Your task to perform on an android device: toggle data saver in the chrome app Image 0: 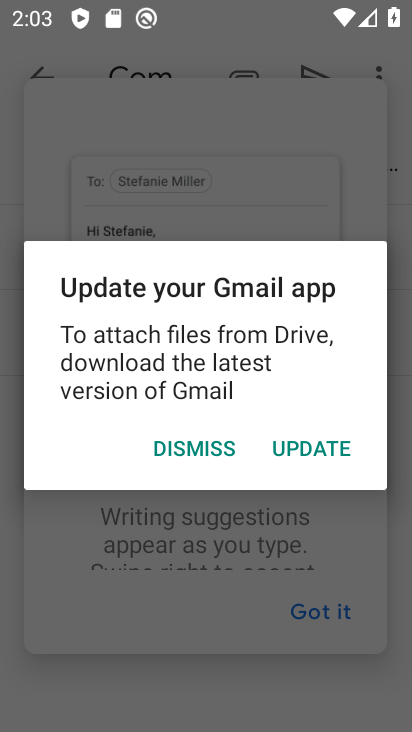
Step 0: press back button
Your task to perform on an android device: toggle data saver in the chrome app Image 1: 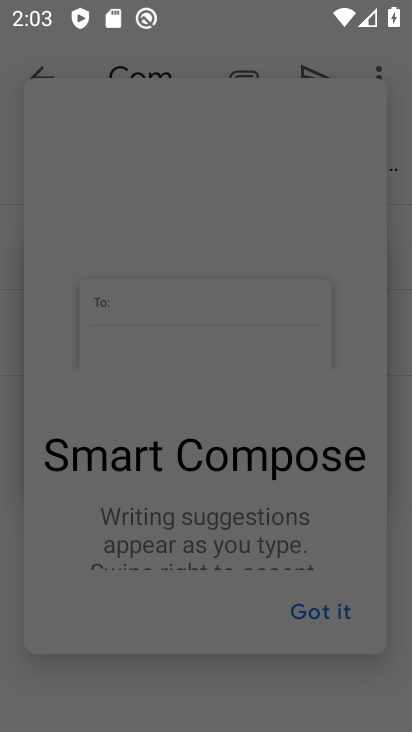
Step 1: press home button
Your task to perform on an android device: toggle data saver in the chrome app Image 2: 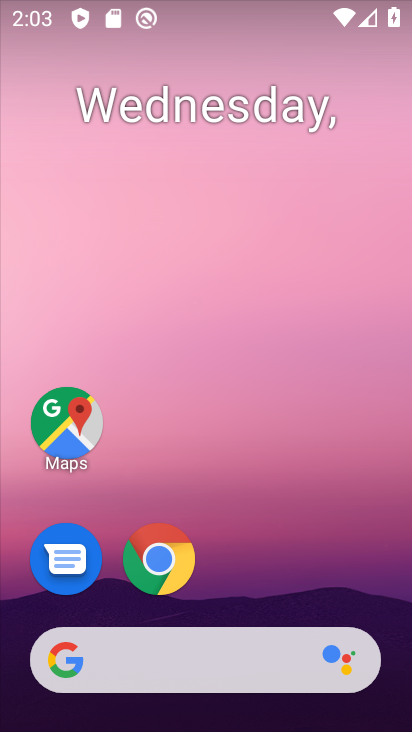
Step 2: click (138, 524)
Your task to perform on an android device: toggle data saver in the chrome app Image 3: 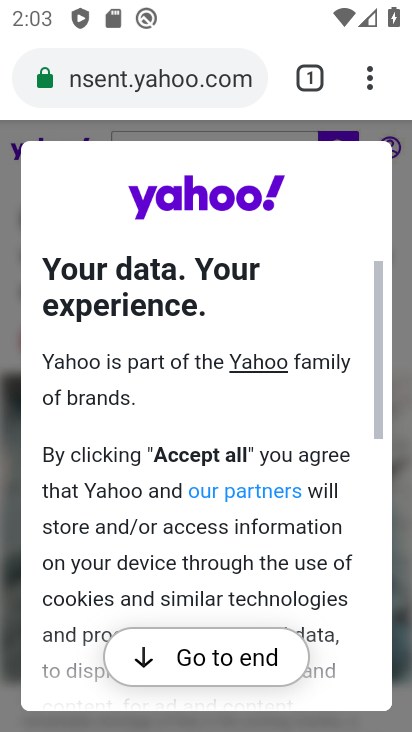
Step 3: drag from (377, 63) to (97, 599)
Your task to perform on an android device: toggle data saver in the chrome app Image 4: 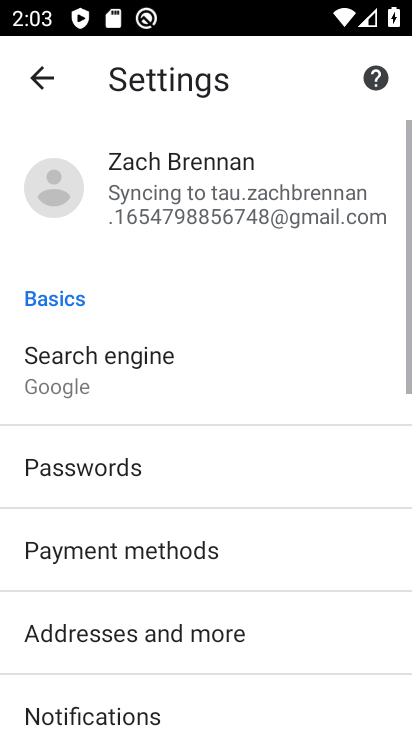
Step 4: drag from (161, 649) to (215, 92)
Your task to perform on an android device: toggle data saver in the chrome app Image 5: 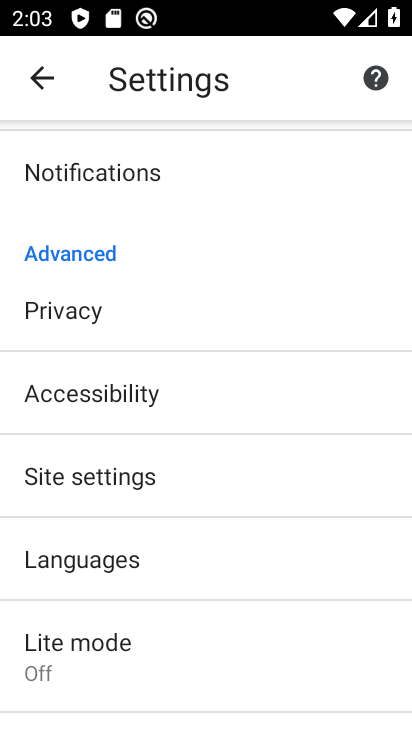
Step 5: click (158, 654)
Your task to perform on an android device: toggle data saver in the chrome app Image 6: 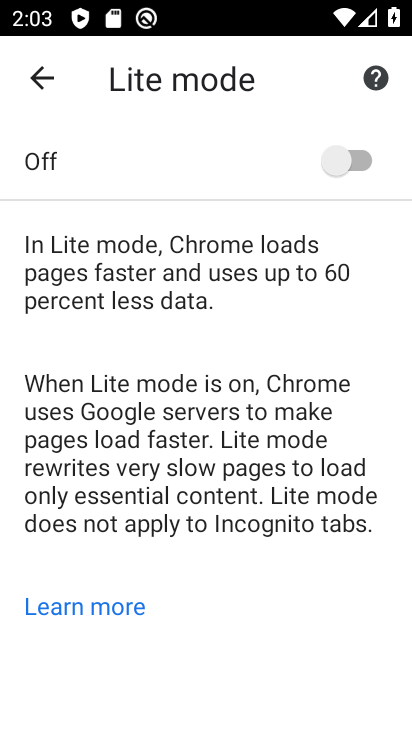
Step 6: click (329, 175)
Your task to perform on an android device: toggle data saver in the chrome app Image 7: 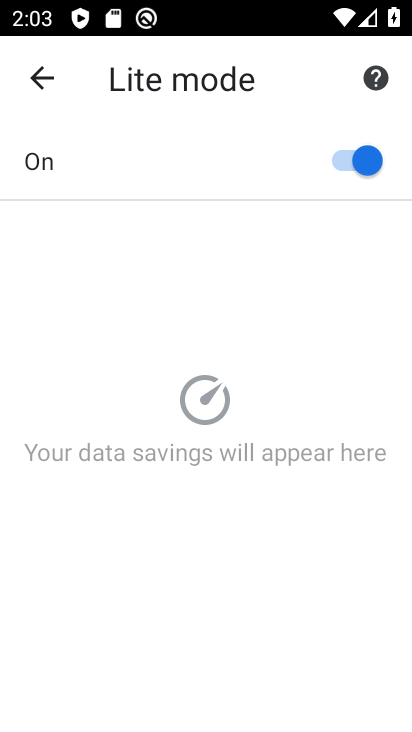
Step 7: task complete